Your task to perform on an android device: Open sound settings Image 0: 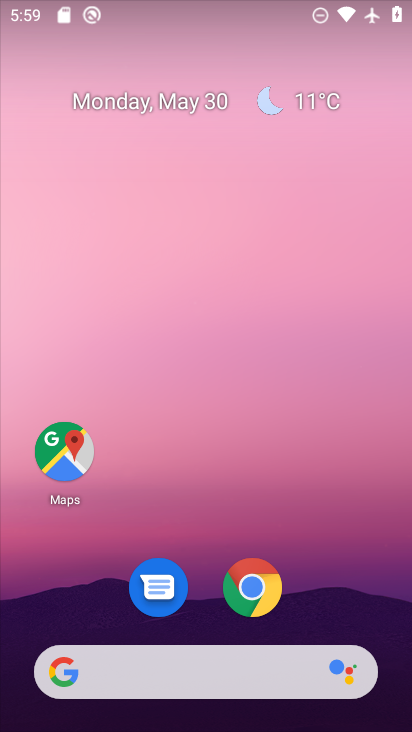
Step 0: drag from (347, 550) to (206, 21)
Your task to perform on an android device: Open sound settings Image 1: 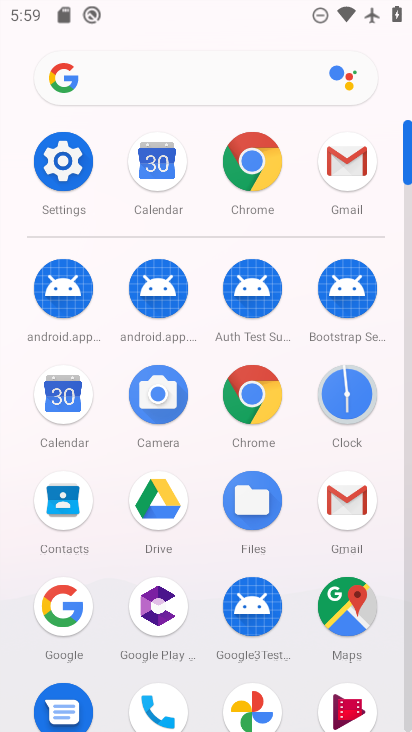
Step 1: click (58, 159)
Your task to perform on an android device: Open sound settings Image 2: 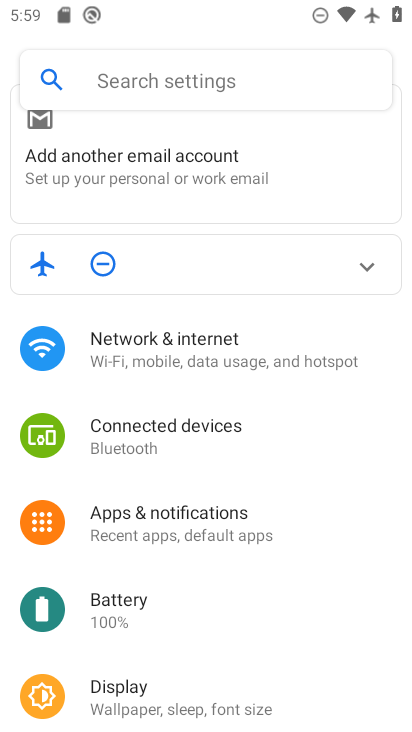
Step 2: drag from (248, 620) to (293, 342)
Your task to perform on an android device: Open sound settings Image 3: 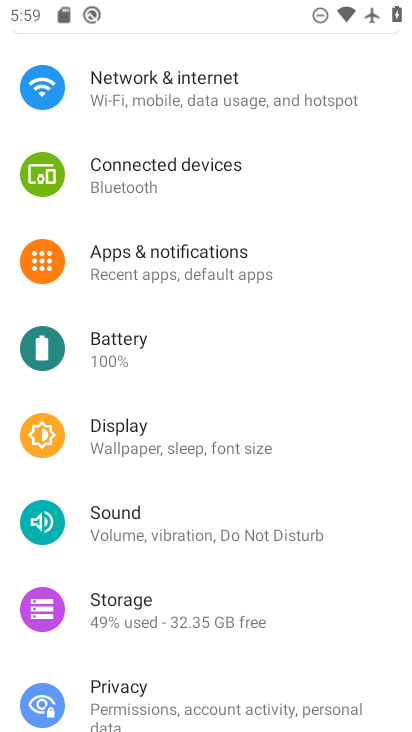
Step 3: click (177, 520)
Your task to perform on an android device: Open sound settings Image 4: 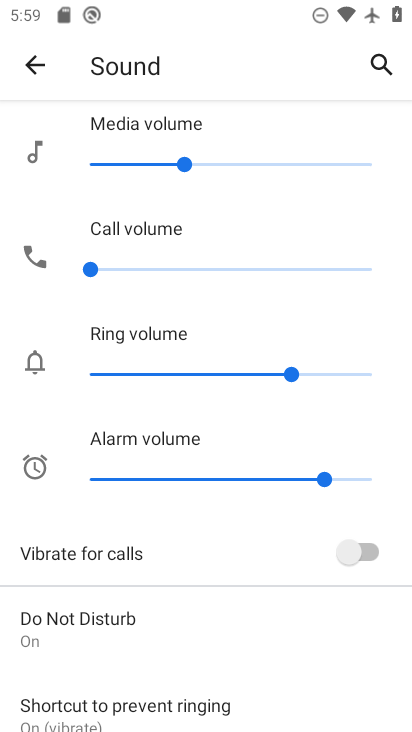
Step 4: drag from (233, 551) to (207, 147)
Your task to perform on an android device: Open sound settings Image 5: 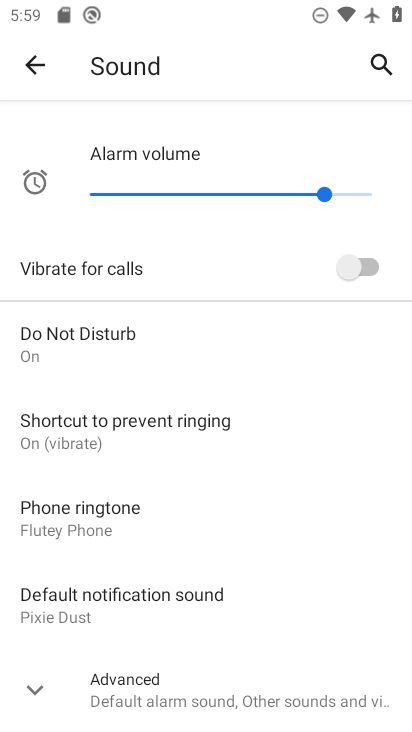
Step 5: drag from (191, 522) to (191, 216)
Your task to perform on an android device: Open sound settings Image 6: 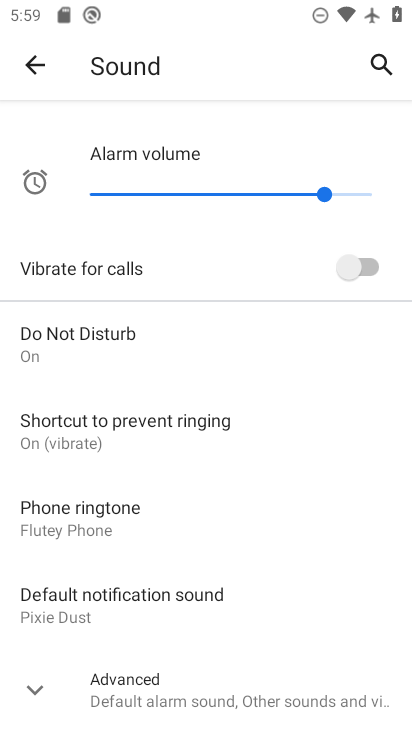
Step 6: click (54, 681)
Your task to perform on an android device: Open sound settings Image 7: 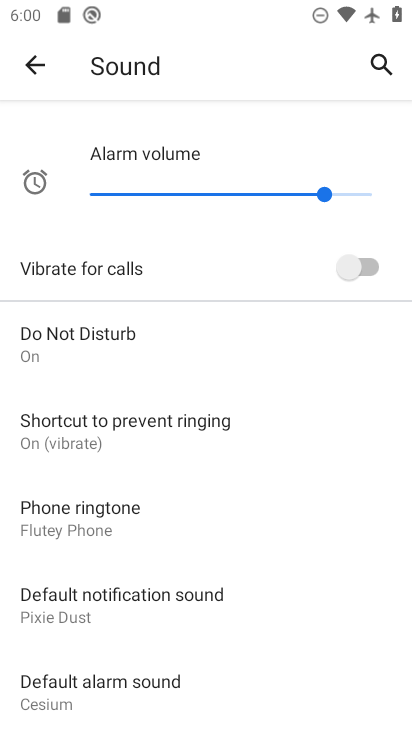
Step 7: task complete